Your task to perform on an android device: Clear all items from cart on walmart. Image 0: 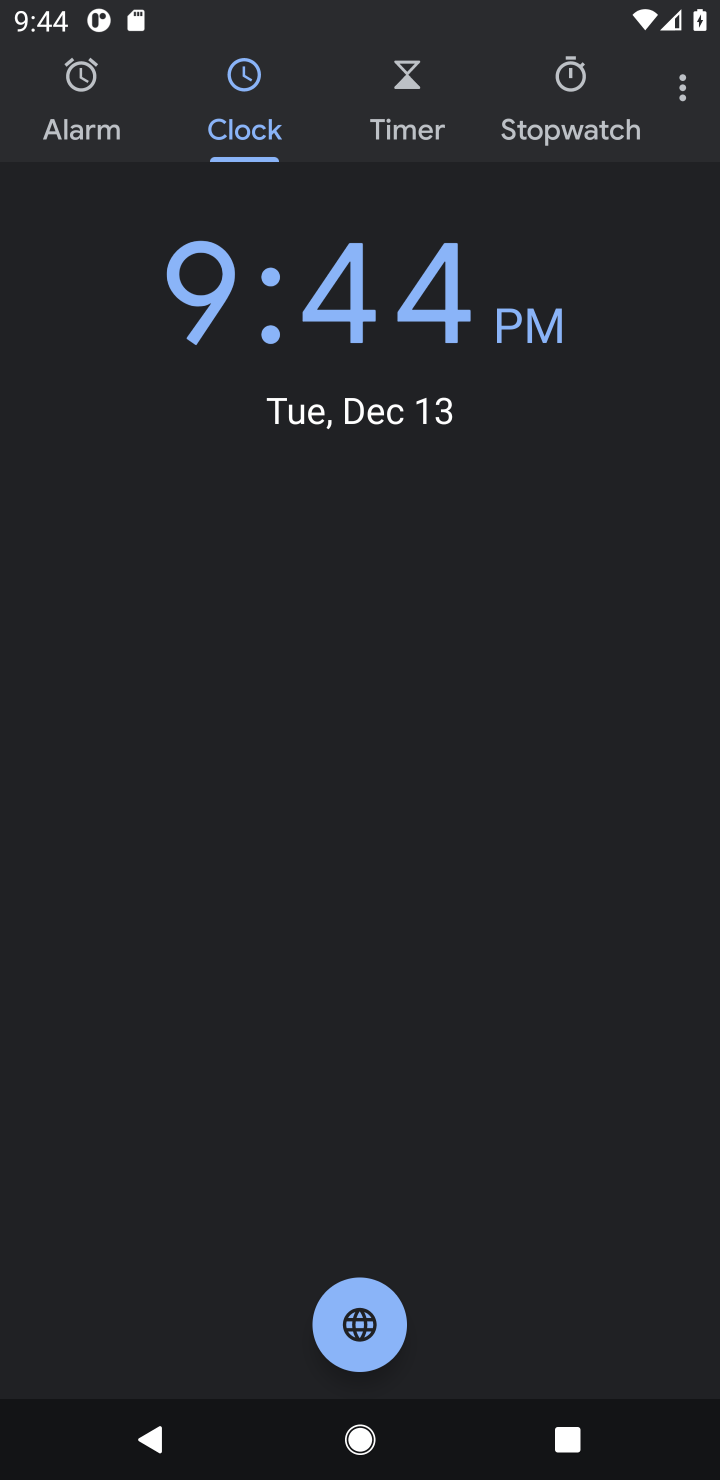
Step 0: press home button
Your task to perform on an android device: Clear all items from cart on walmart. Image 1: 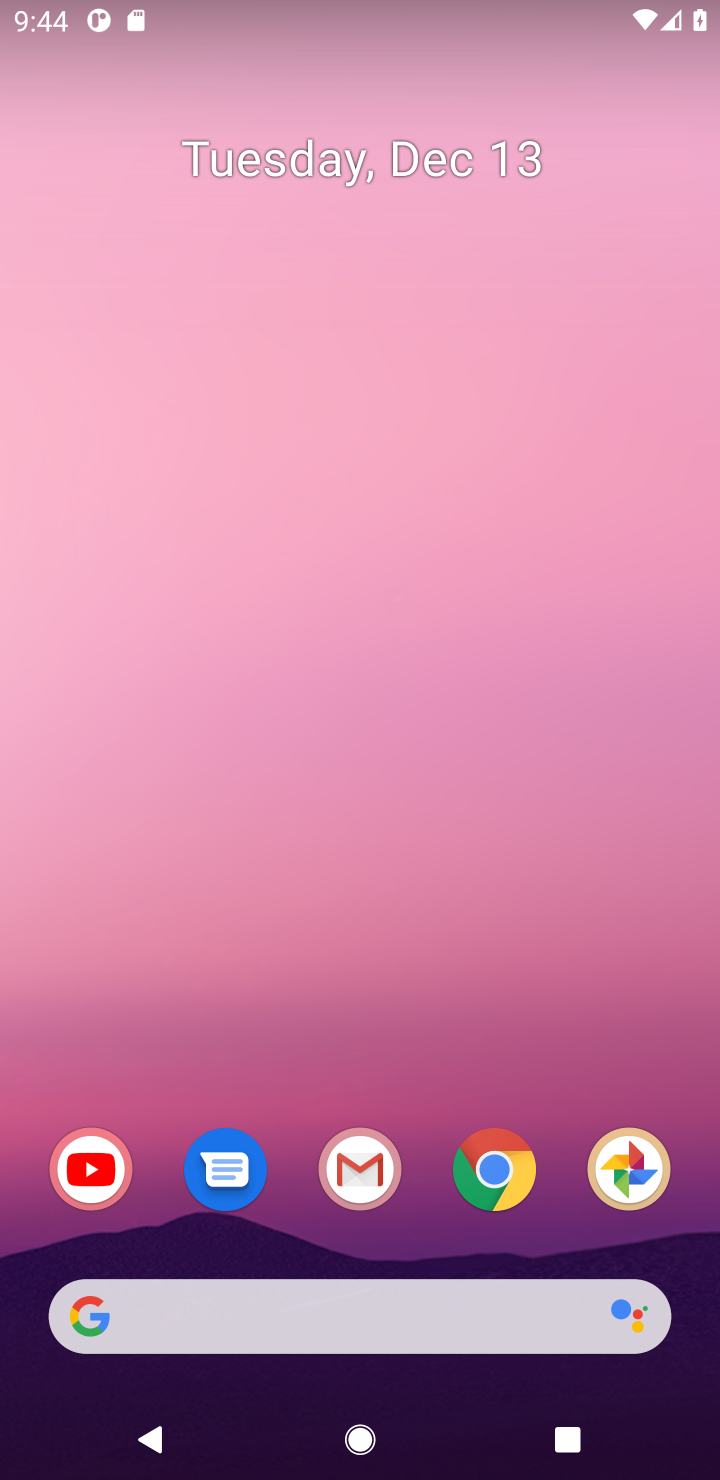
Step 1: click (516, 1184)
Your task to perform on an android device: Clear all items from cart on walmart. Image 2: 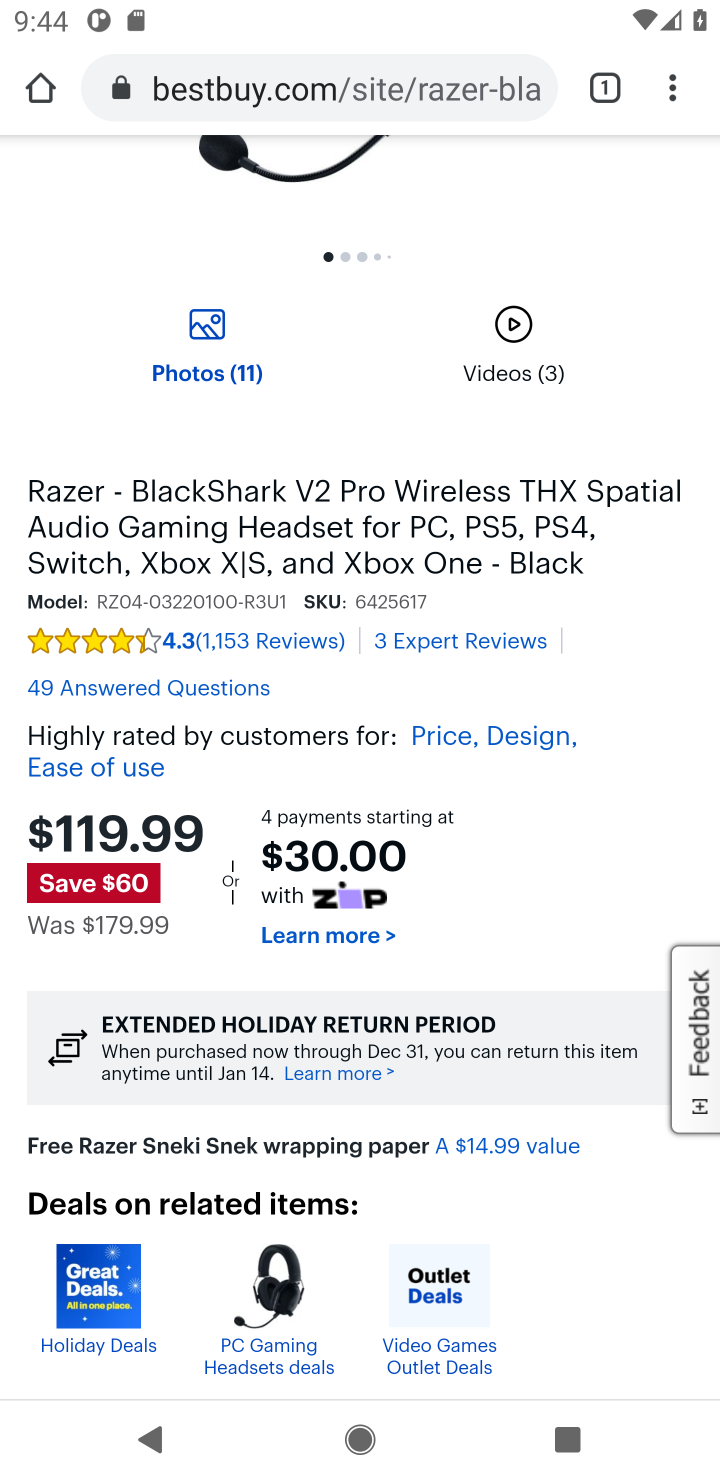
Step 2: click (278, 84)
Your task to perform on an android device: Clear all items from cart on walmart. Image 3: 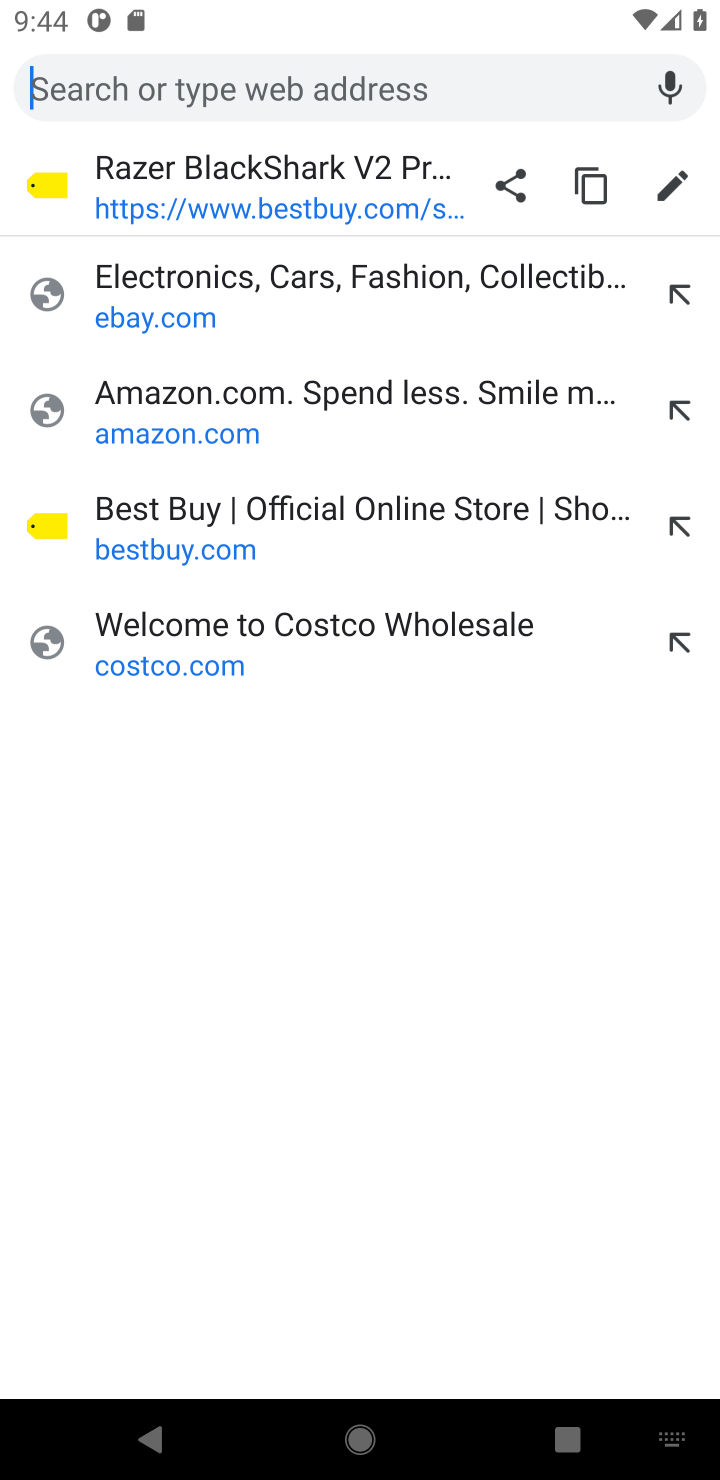
Step 3: type "walmart"
Your task to perform on an android device: Clear all items from cart on walmart. Image 4: 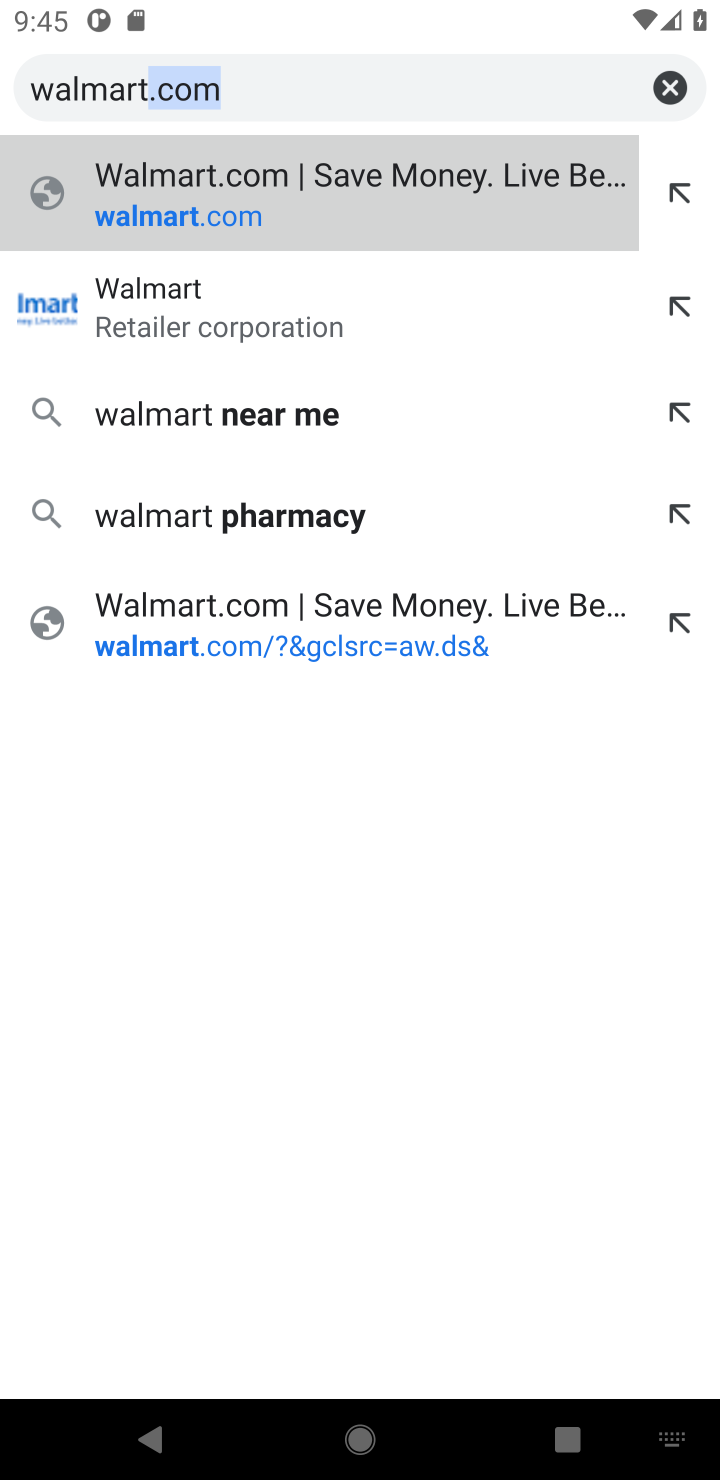
Step 4: click (203, 204)
Your task to perform on an android device: Clear all items from cart on walmart. Image 5: 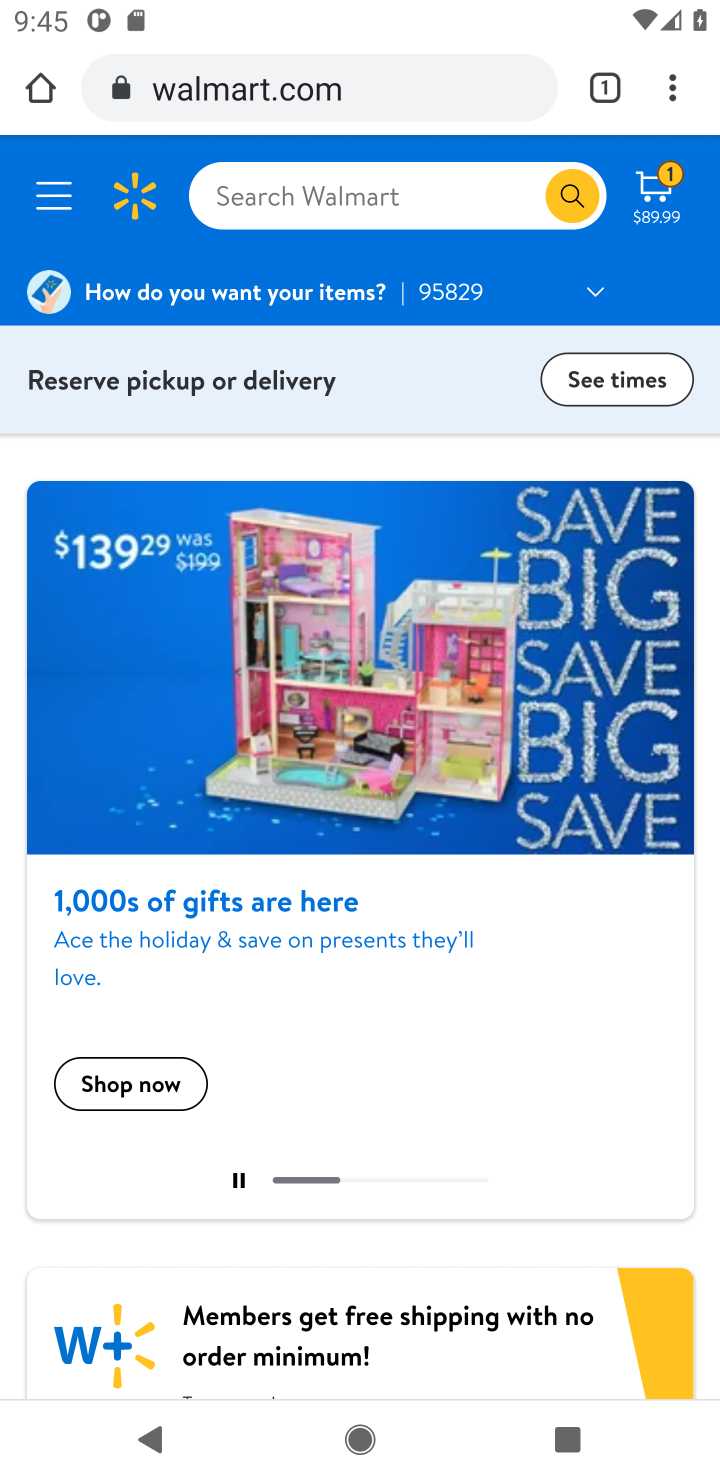
Step 5: click (660, 171)
Your task to perform on an android device: Clear all items from cart on walmart. Image 6: 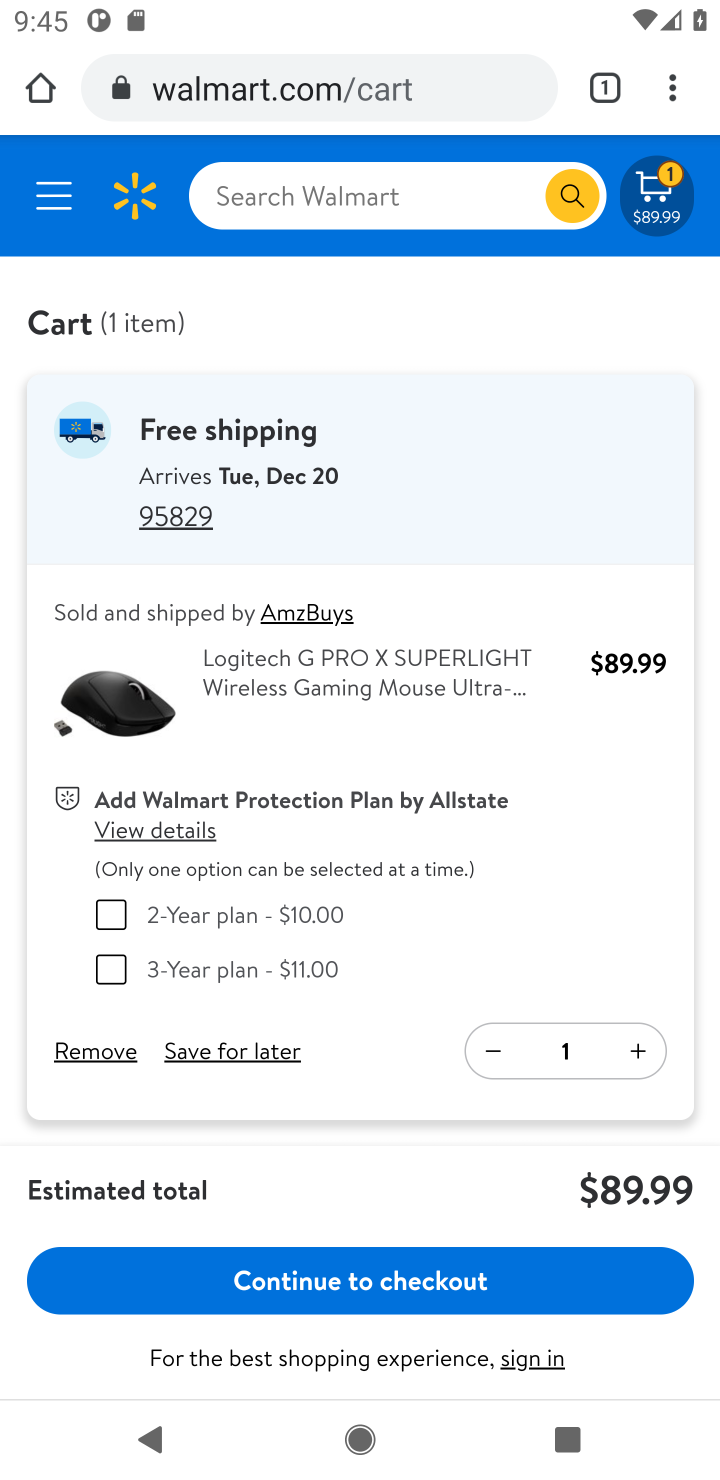
Step 6: click (78, 1045)
Your task to perform on an android device: Clear all items from cart on walmart. Image 7: 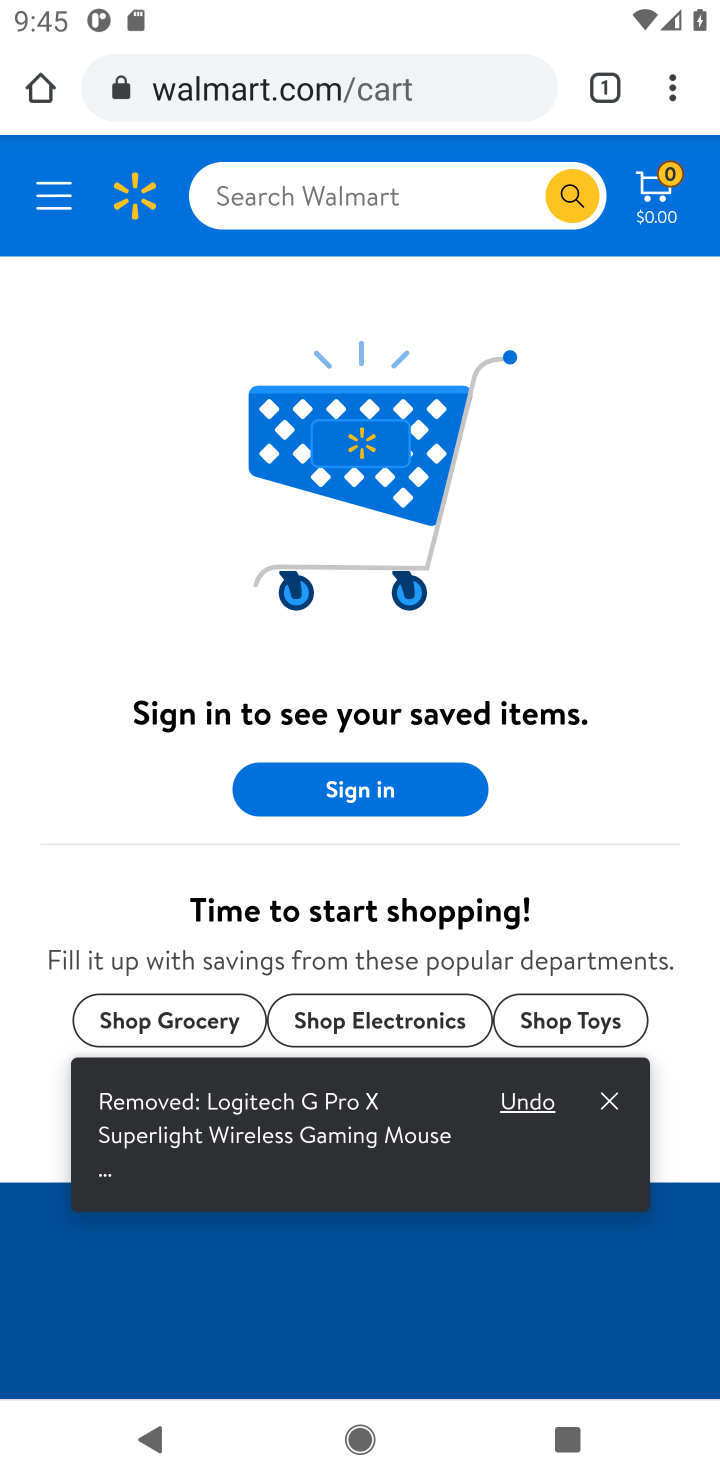
Step 7: task complete